Your task to perform on an android device: Open my contact list Image 0: 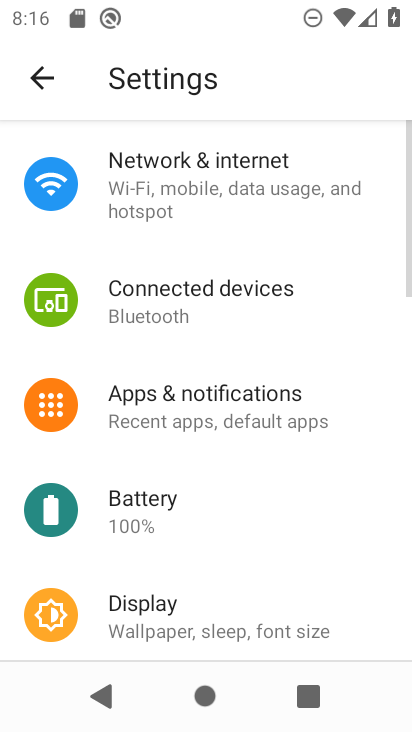
Step 0: press home button
Your task to perform on an android device: Open my contact list Image 1: 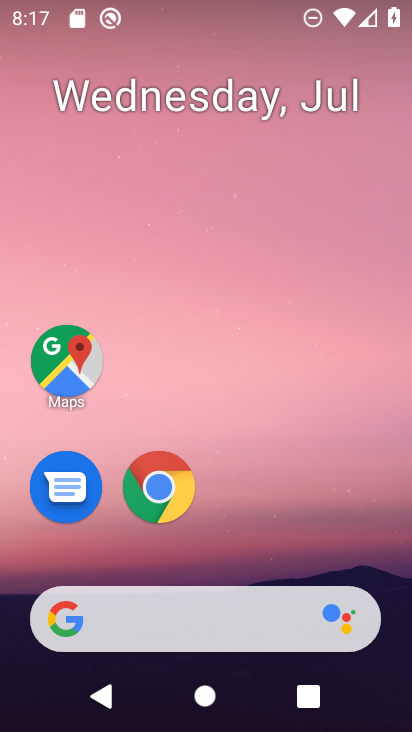
Step 1: drag from (335, 516) to (368, 111)
Your task to perform on an android device: Open my contact list Image 2: 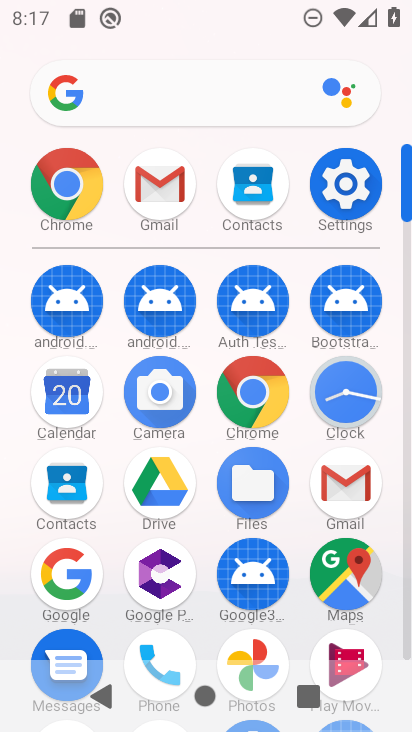
Step 2: click (68, 491)
Your task to perform on an android device: Open my contact list Image 3: 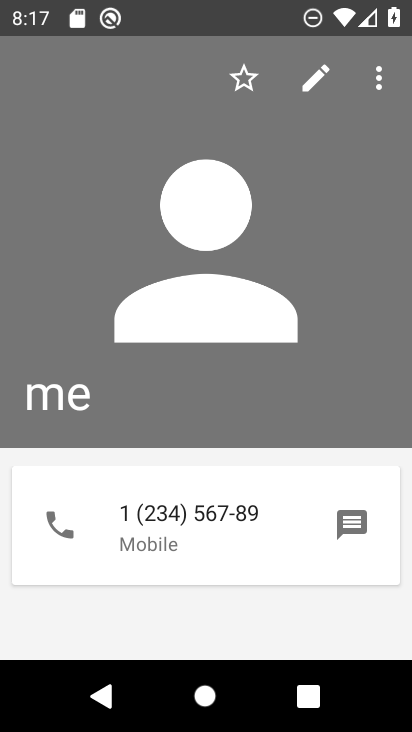
Step 3: task complete